Your task to perform on an android device: turn on airplane mode Image 0: 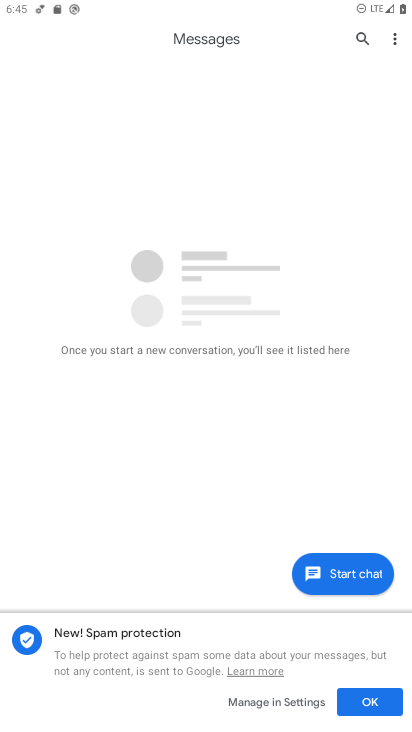
Step 0: press home button
Your task to perform on an android device: turn on airplane mode Image 1: 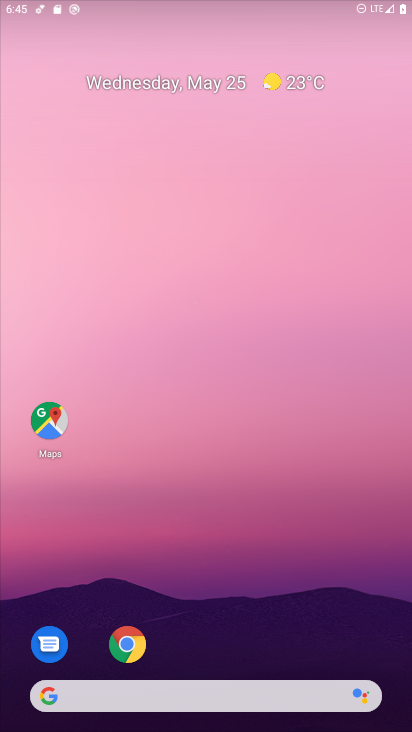
Step 1: drag from (206, 8) to (278, 411)
Your task to perform on an android device: turn on airplane mode Image 2: 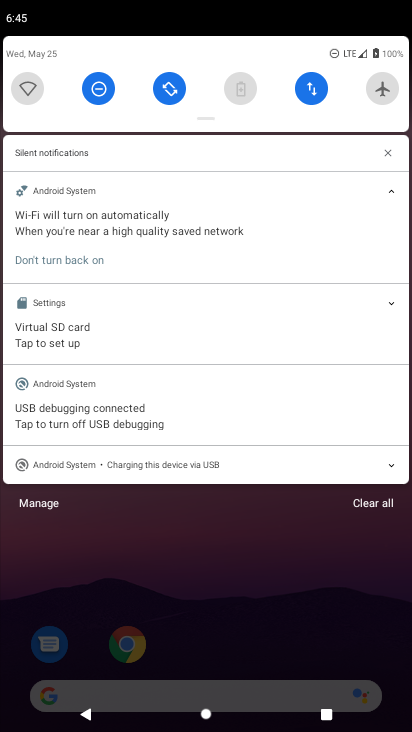
Step 2: click (374, 90)
Your task to perform on an android device: turn on airplane mode Image 3: 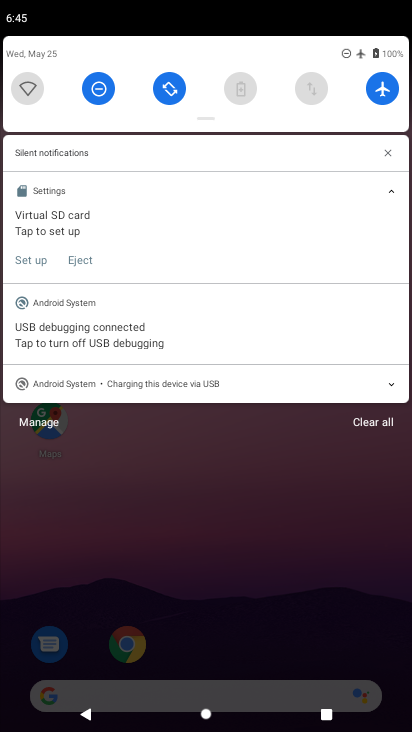
Step 3: task complete